Your task to perform on an android device: open app "PlayWell" (install if not already installed) Image 0: 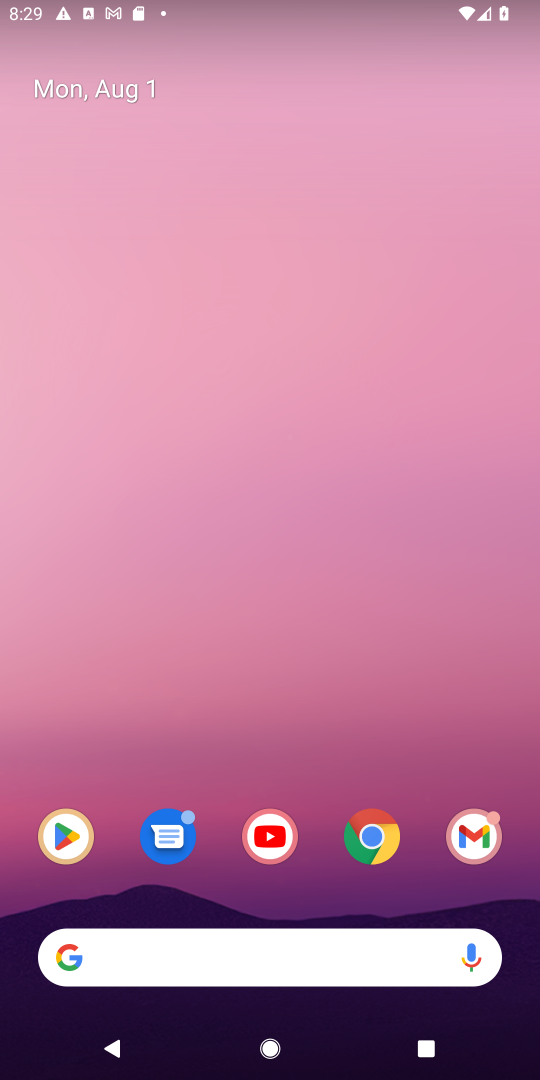
Step 0: press home button
Your task to perform on an android device: open app "PlayWell" (install if not already installed) Image 1: 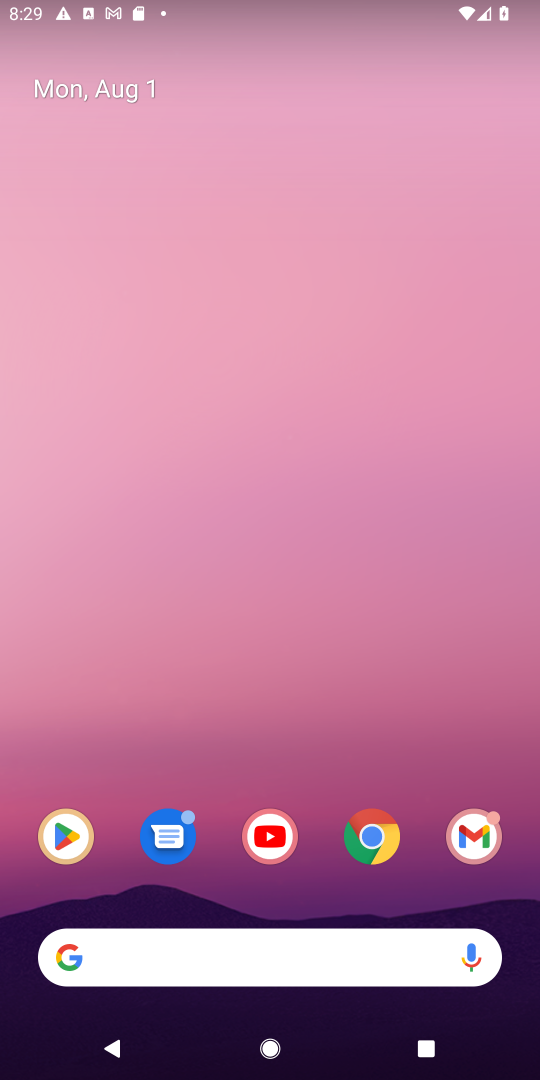
Step 1: click (54, 838)
Your task to perform on an android device: open app "PlayWell" (install if not already installed) Image 2: 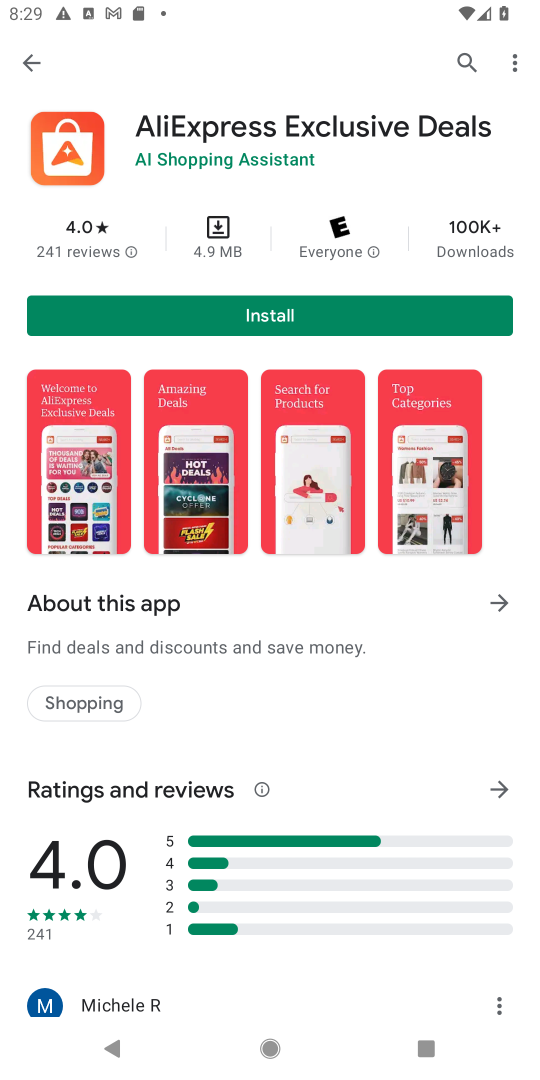
Step 2: click (465, 57)
Your task to perform on an android device: open app "PlayWell" (install if not already installed) Image 3: 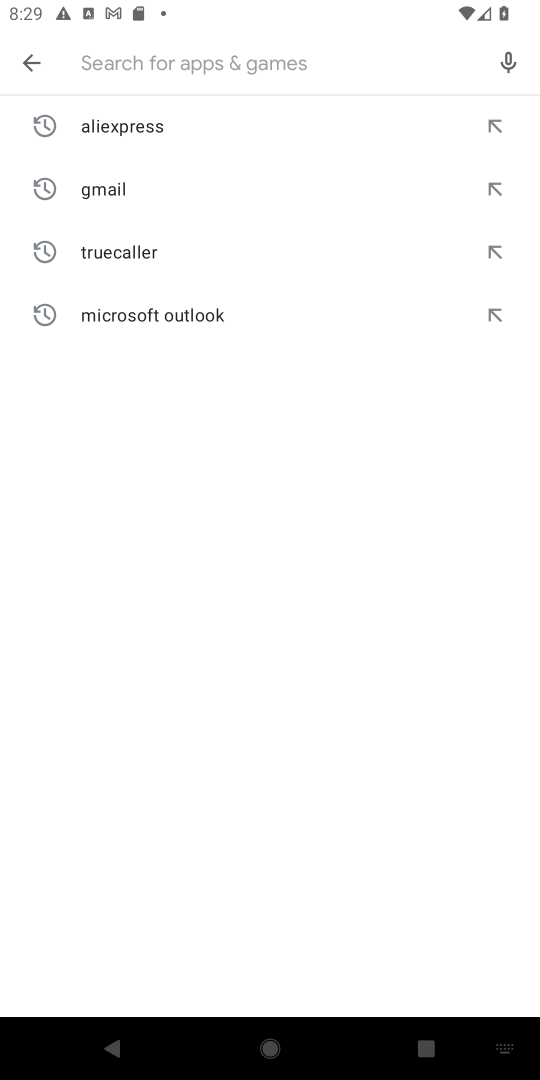
Step 3: type "PlayWell"
Your task to perform on an android device: open app "PlayWell" (install if not already installed) Image 4: 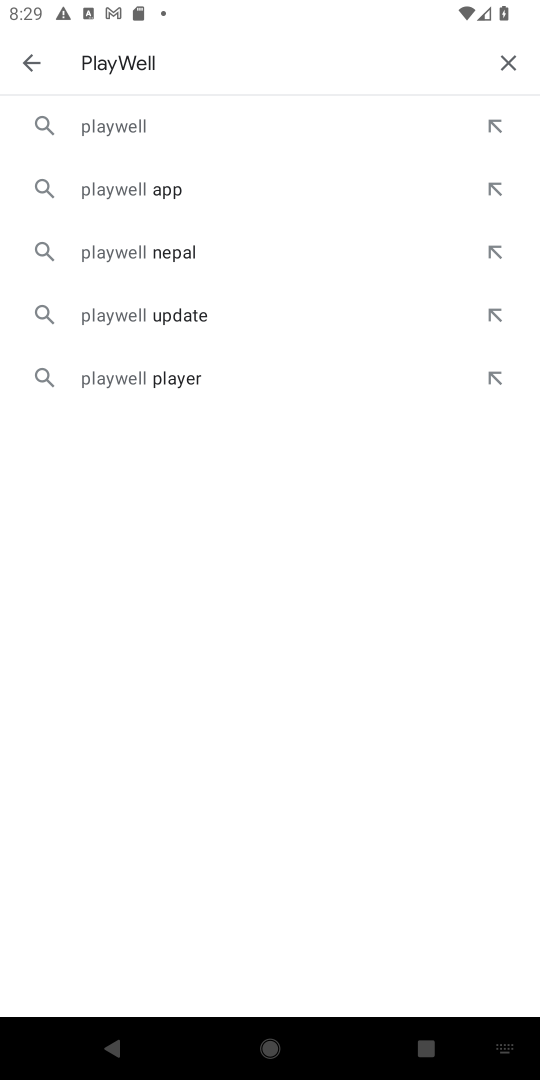
Step 4: click (147, 132)
Your task to perform on an android device: open app "PlayWell" (install if not already installed) Image 5: 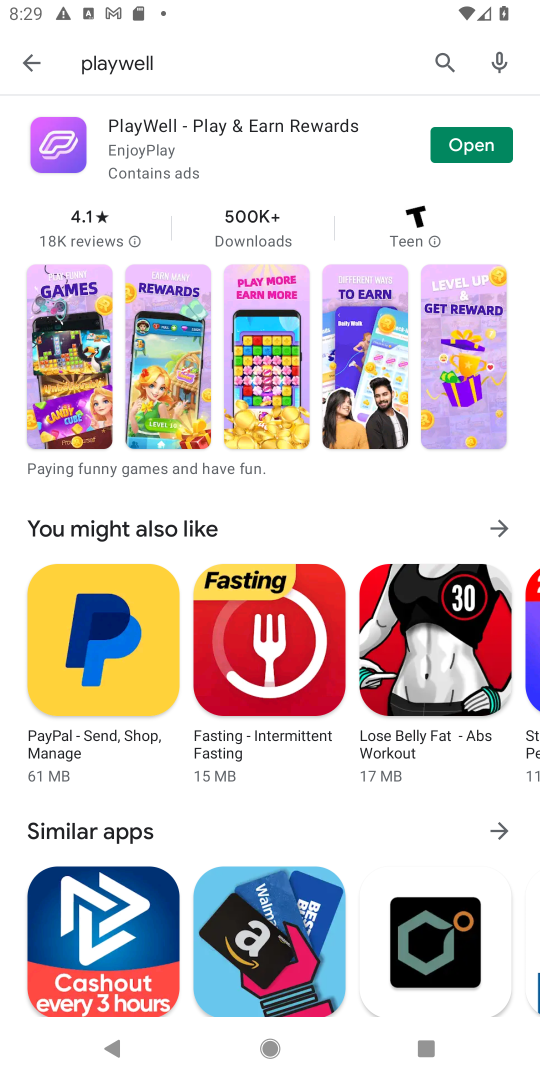
Step 5: click (484, 143)
Your task to perform on an android device: open app "PlayWell" (install if not already installed) Image 6: 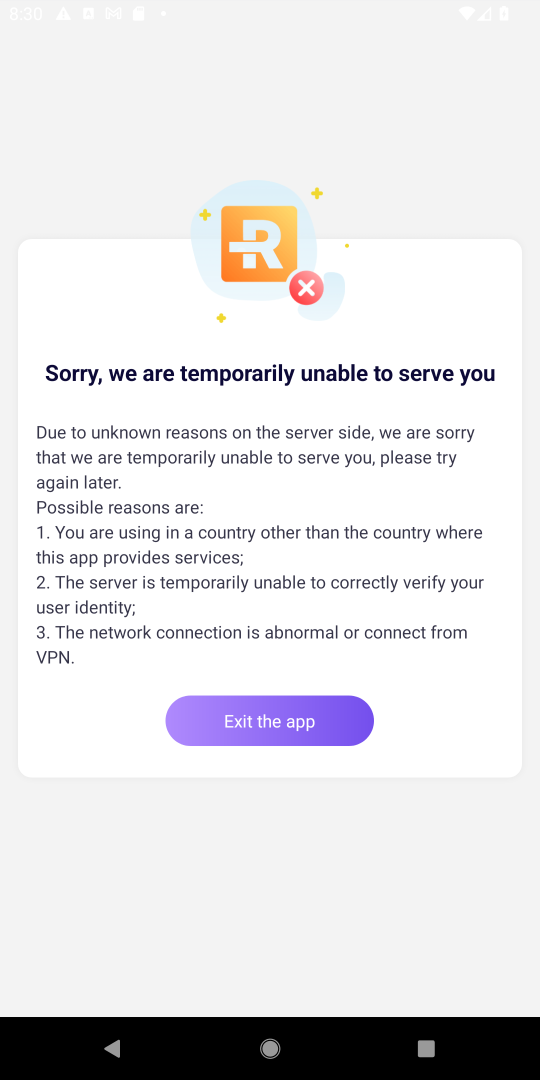
Step 6: task complete